Your task to perform on an android device: change the upload size in google photos Image 0: 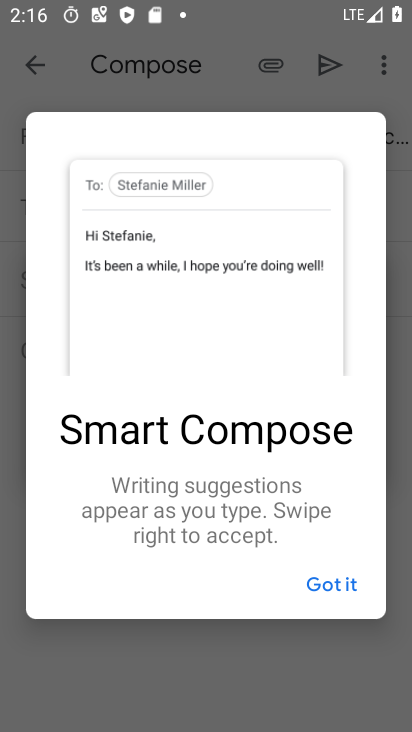
Step 0: press home button
Your task to perform on an android device: change the upload size in google photos Image 1: 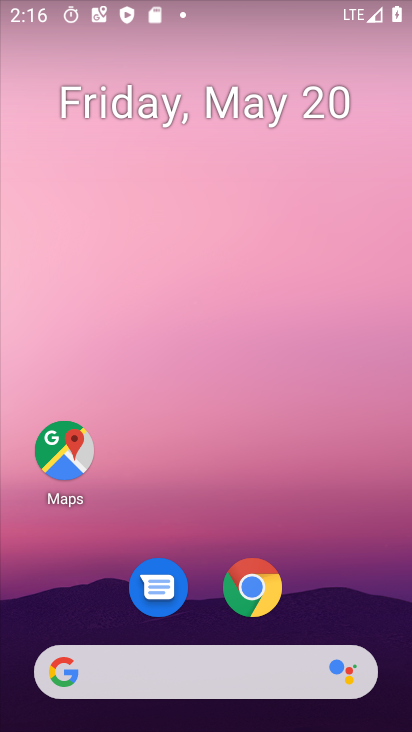
Step 1: drag from (324, 562) to (187, 118)
Your task to perform on an android device: change the upload size in google photos Image 2: 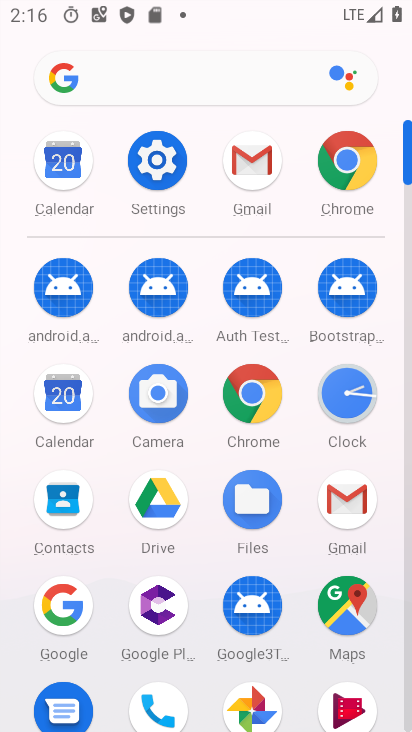
Step 2: click (255, 698)
Your task to perform on an android device: change the upload size in google photos Image 3: 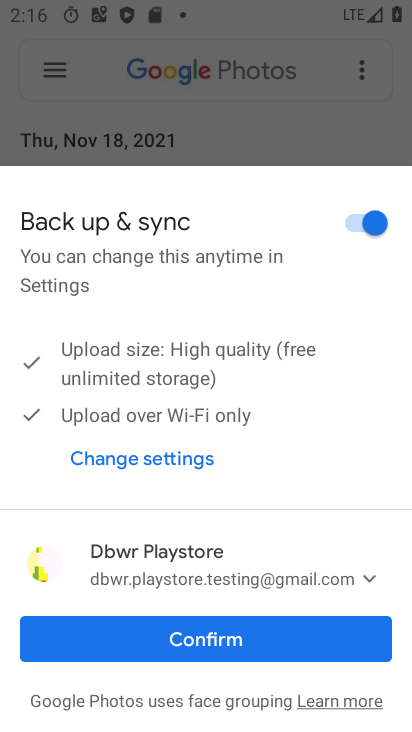
Step 3: click (285, 637)
Your task to perform on an android device: change the upload size in google photos Image 4: 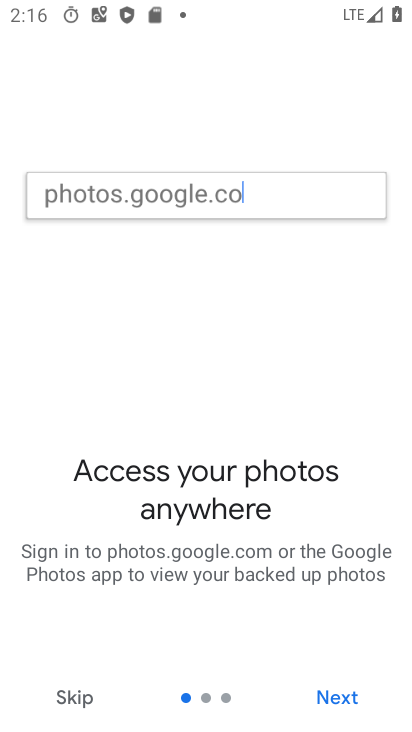
Step 4: click (351, 691)
Your task to perform on an android device: change the upload size in google photos Image 5: 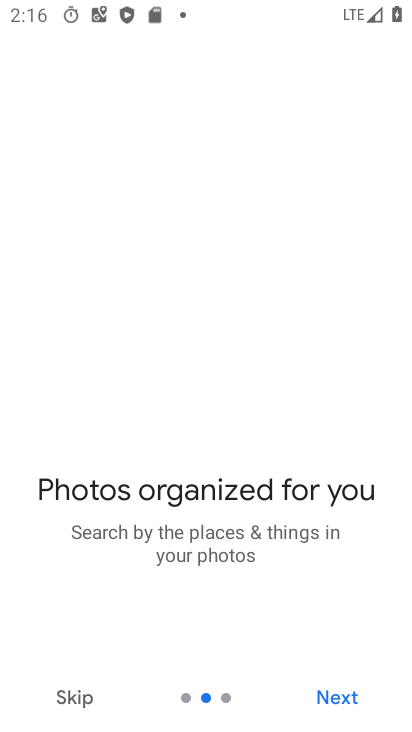
Step 5: click (350, 690)
Your task to perform on an android device: change the upload size in google photos Image 6: 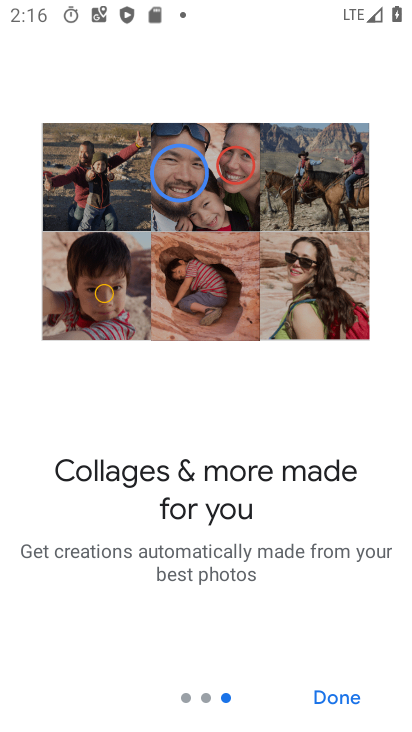
Step 6: click (335, 690)
Your task to perform on an android device: change the upload size in google photos Image 7: 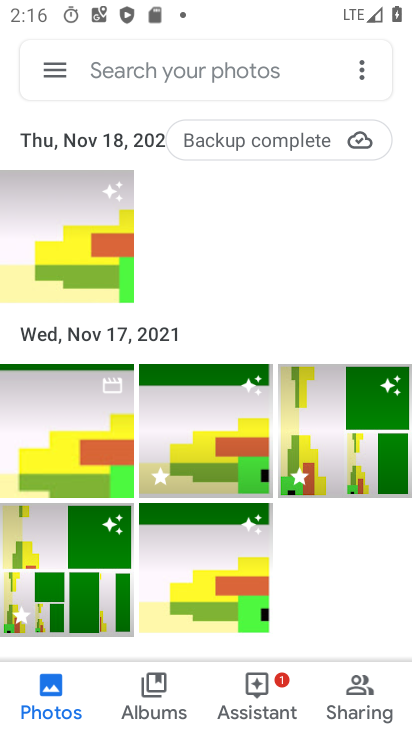
Step 7: click (45, 64)
Your task to perform on an android device: change the upload size in google photos Image 8: 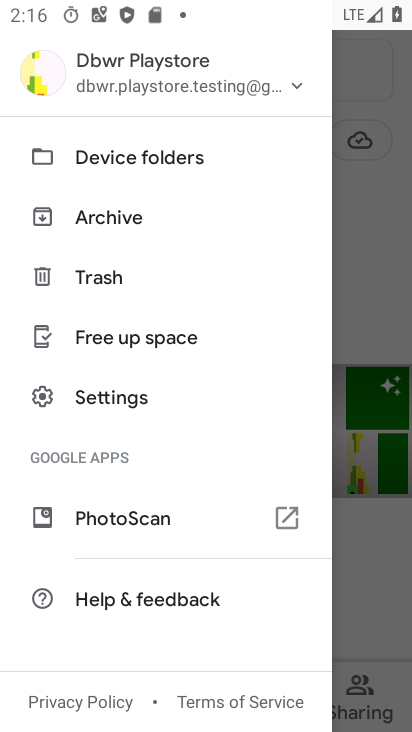
Step 8: drag from (127, 547) to (151, 68)
Your task to perform on an android device: change the upload size in google photos Image 9: 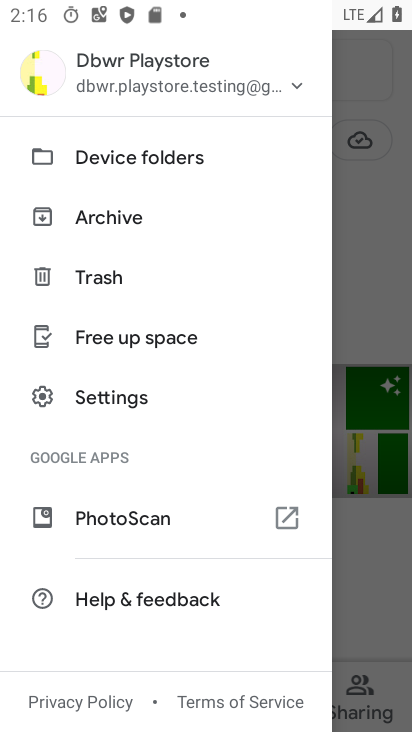
Step 9: drag from (118, 604) to (202, 214)
Your task to perform on an android device: change the upload size in google photos Image 10: 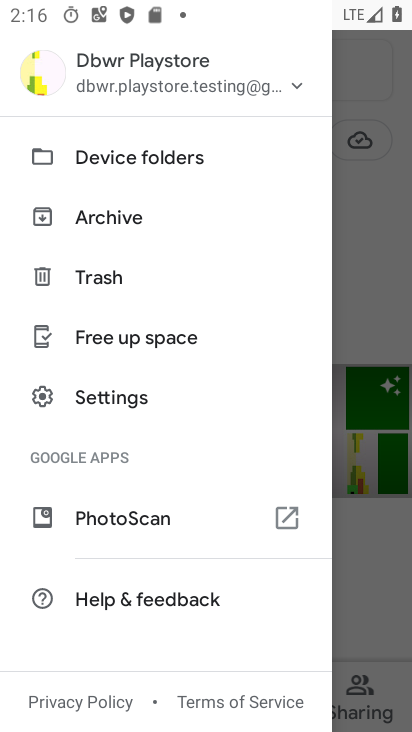
Step 10: drag from (165, 519) to (164, 176)
Your task to perform on an android device: change the upload size in google photos Image 11: 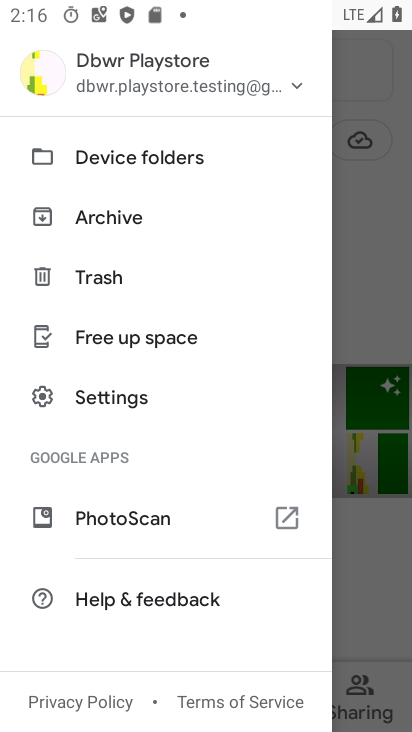
Step 11: click (111, 401)
Your task to perform on an android device: change the upload size in google photos Image 12: 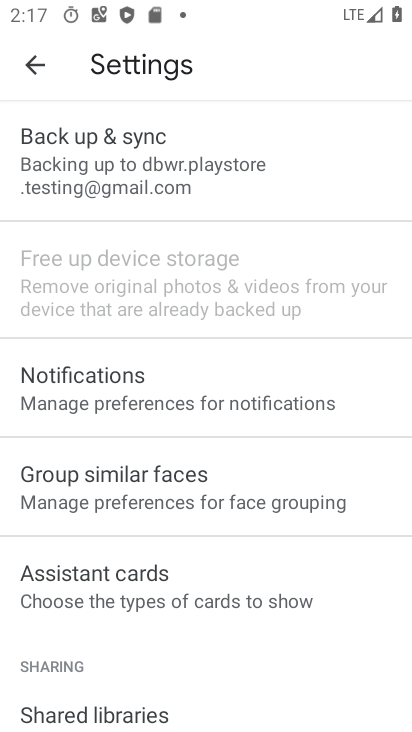
Step 12: click (129, 154)
Your task to perform on an android device: change the upload size in google photos Image 13: 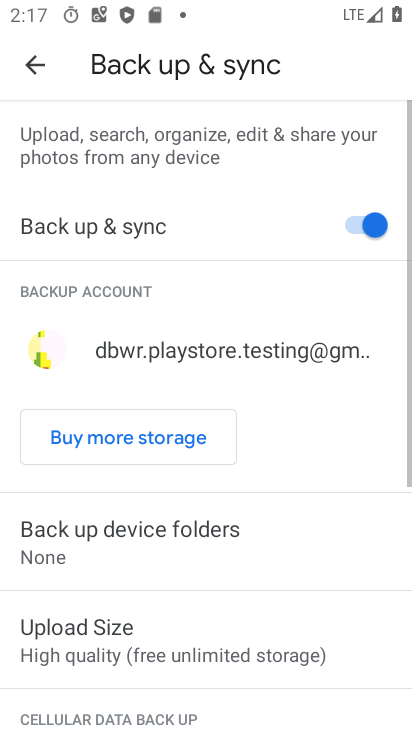
Step 13: click (268, 638)
Your task to perform on an android device: change the upload size in google photos Image 14: 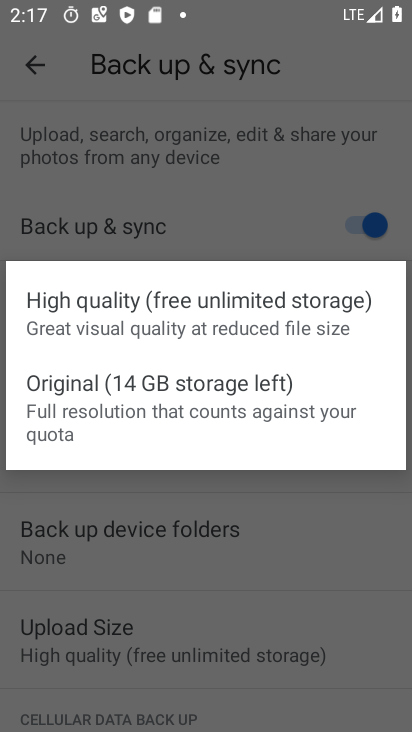
Step 14: click (142, 388)
Your task to perform on an android device: change the upload size in google photos Image 15: 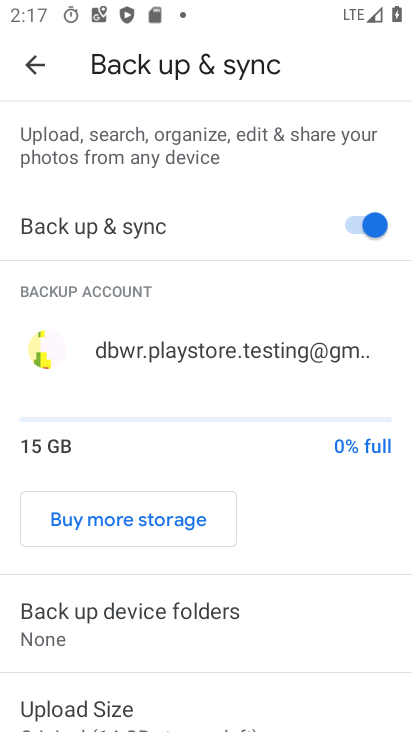
Step 15: task complete